Your task to perform on an android device: turn on translation in the chrome app Image 0: 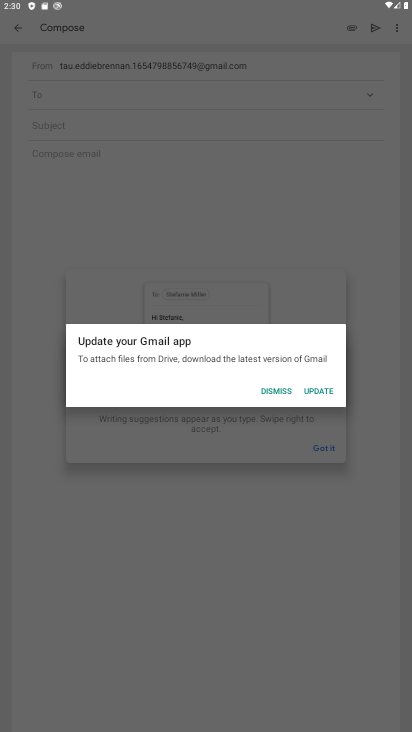
Step 0: press home button
Your task to perform on an android device: turn on translation in the chrome app Image 1: 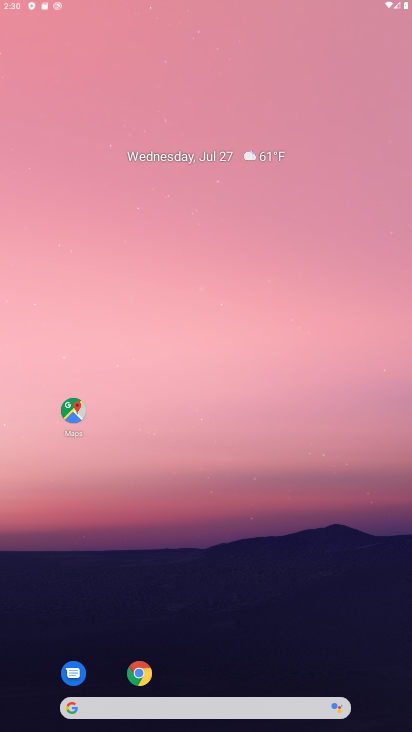
Step 1: click (143, 664)
Your task to perform on an android device: turn on translation in the chrome app Image 2: 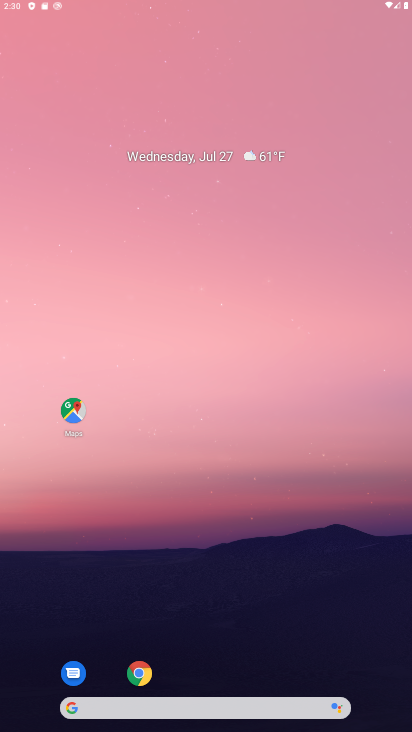
Step 2: click (137, 672)
Your task to perform on an android device: turn on translation in the chrome app Image 3: 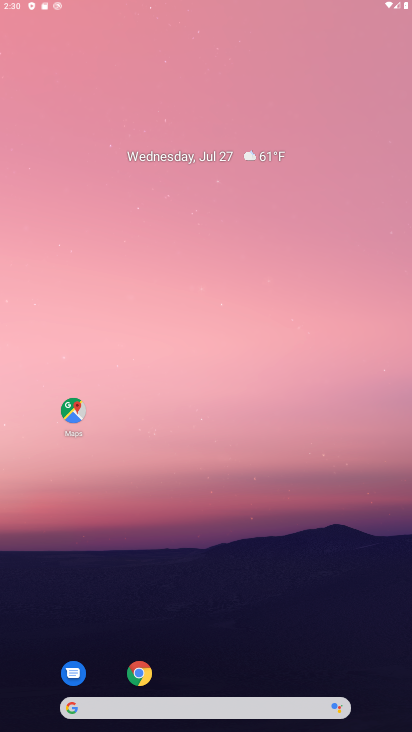
Step 3: click (138, 668)
Your task to perform on an android device: turn on translation in the chrome app Image 4: 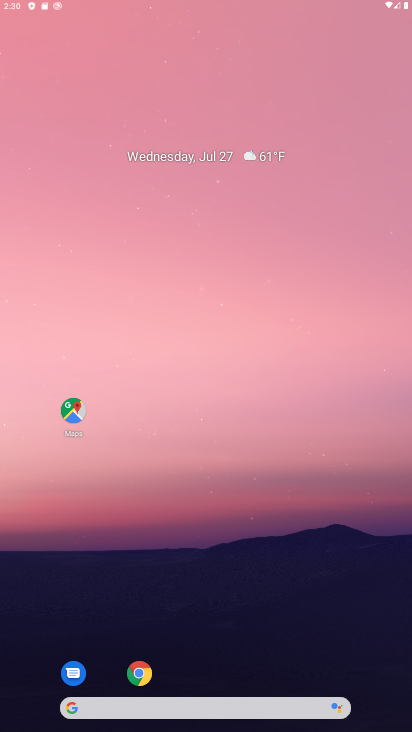
Step 4: click (130, 679)
Your task to perform on an android device: turn on translation in the chrome app Image 5: 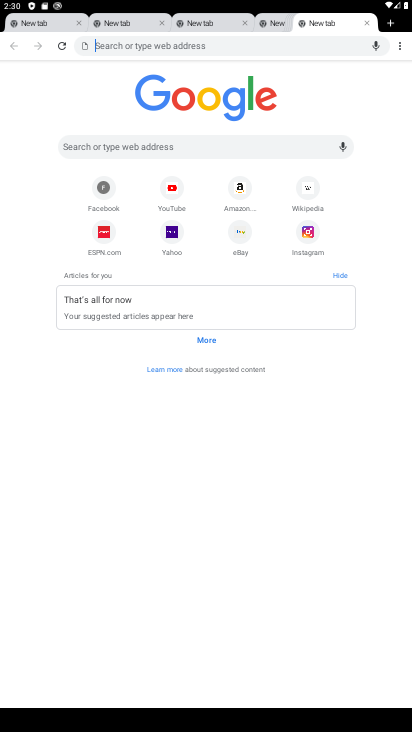
Step 5: click (394, 44)
Your task to perform on an android device: turn on translation in the chrome app Image 6: 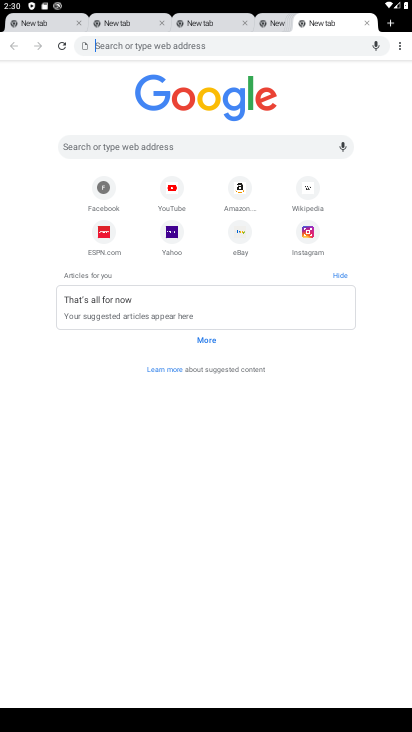
Step 6: click (401, 40)
Your task to perform on an android device: turn on translation in the chrome app Image 7: 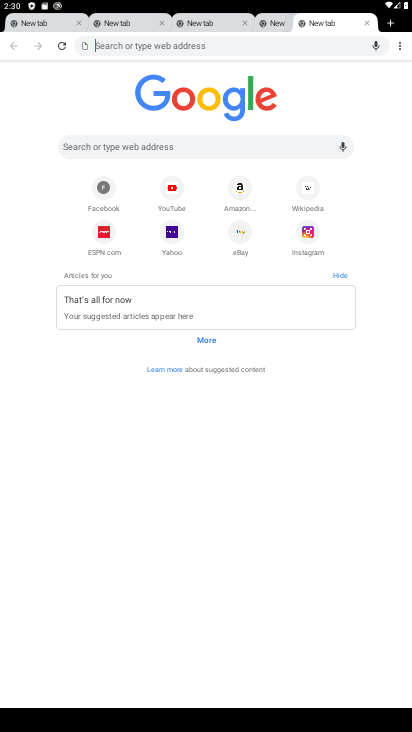
Step 7: task complete